Your task to perform on an android device: Go to sound settings Image 0: 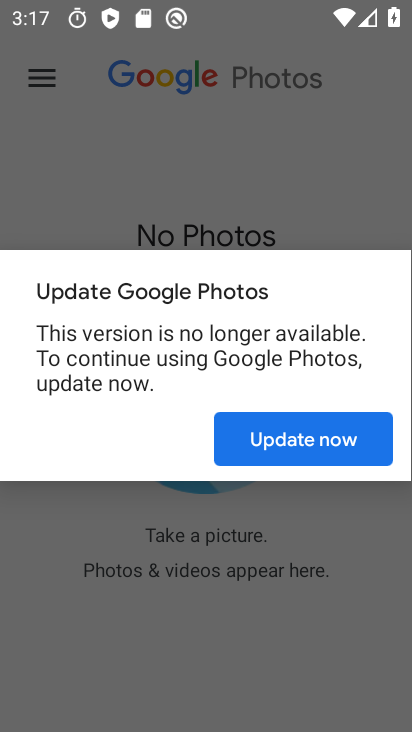
Step 0: press home button
Your task to perform on an android device: Go to sound settings Image 1: 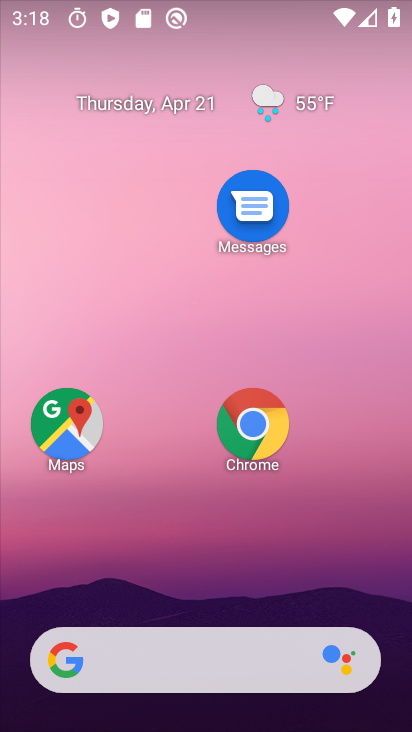
Step 1: drag from (191, 464) to (164, 153)
Your task to perform on an android device: Go to sound settings Image 2: 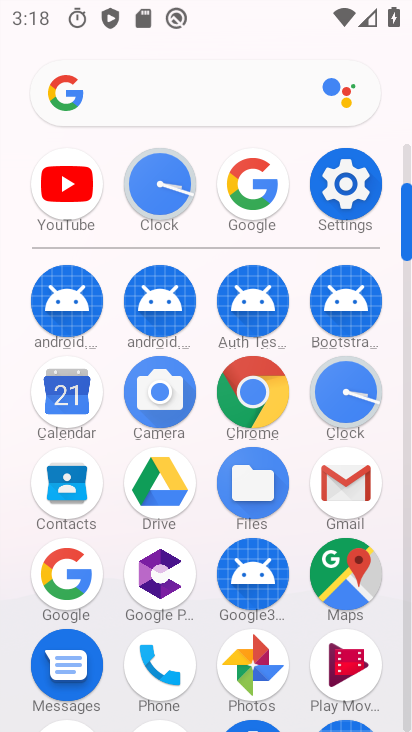
Step 2: click (339, 182)
Your task to perform on an android device: Go to sound settings Image 3: 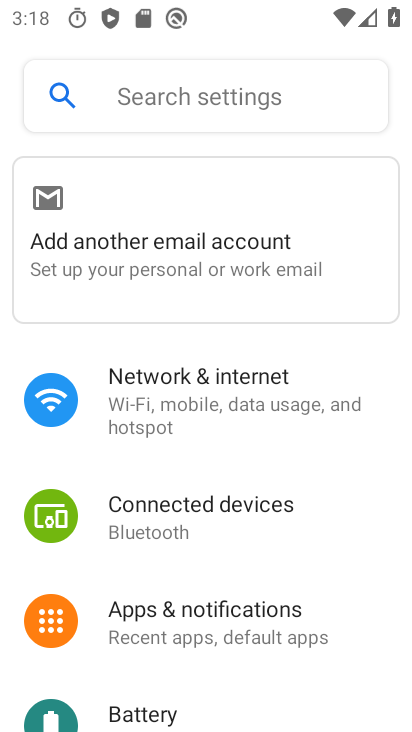
Step 3: drag from (253, 546) to (229, 132)
Your task to perform on an android device: Go to sound settings Image 4: 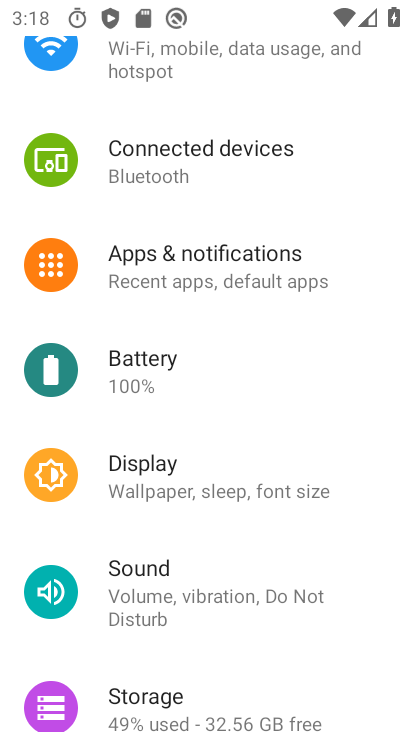
Step 4: click (177, 589)
Your task to perform on an android device: Go to sound settings Image 5: 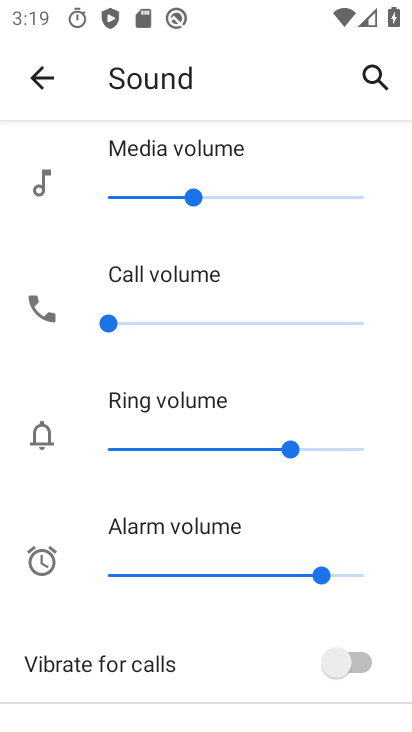
Step 5: task complete